Your task to perform on an android device: Go to settings Image 0: 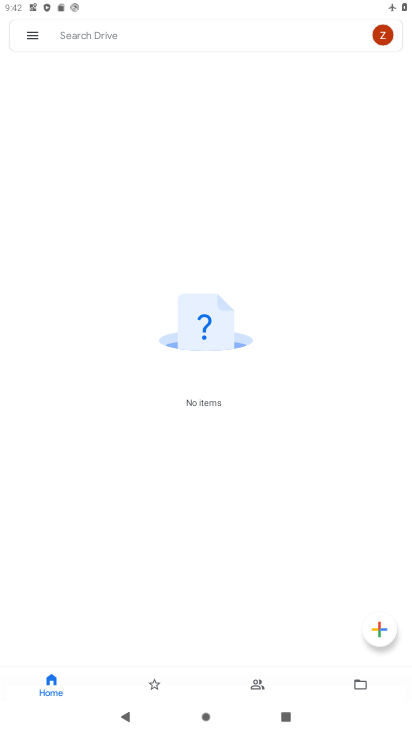
Step 0: press home button
Your task to perform on an android device: Go to settings Image 1: 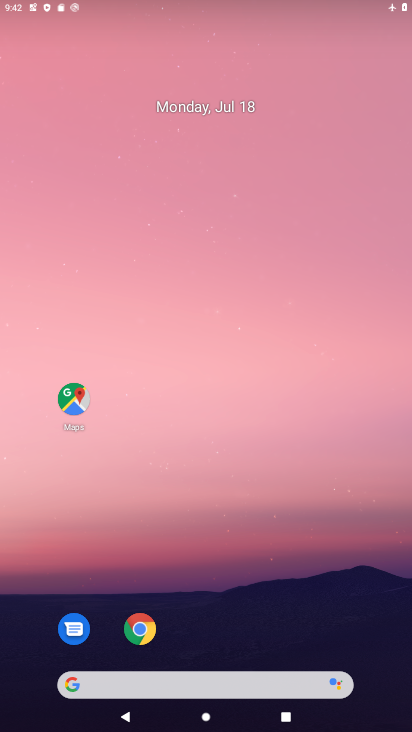
Step 1: drag from (332, 628) to (229, 153)
Your task to perform on an android device: Go to settings Image 2: 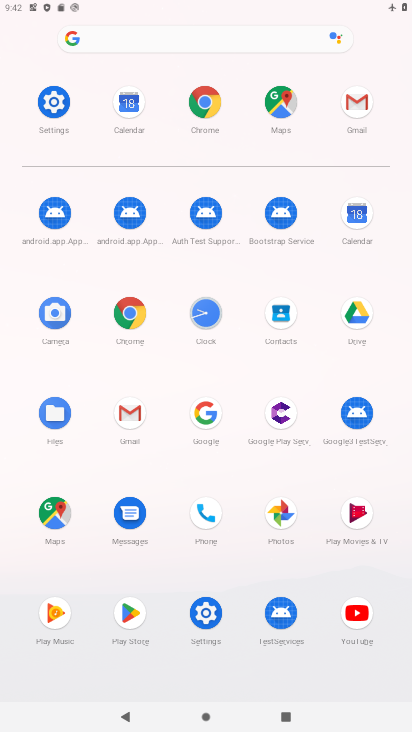
Step 2: click (64, 109)
Your task to perform on an android device: Go to settings Image 3: 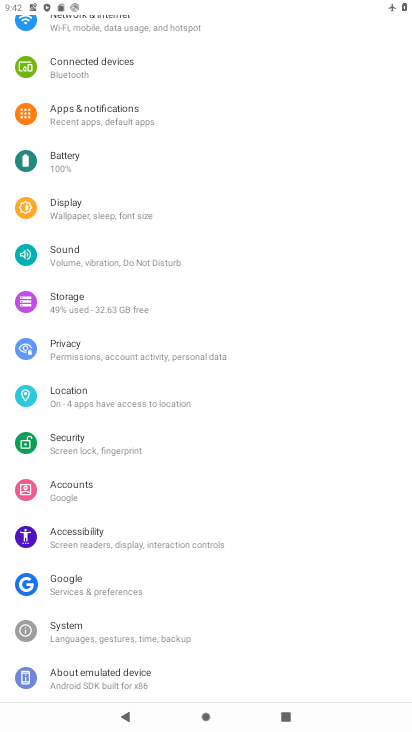
Step 3: task complete